Your task to perform on an android device: turn on the 12-hour format for clock Image 0: 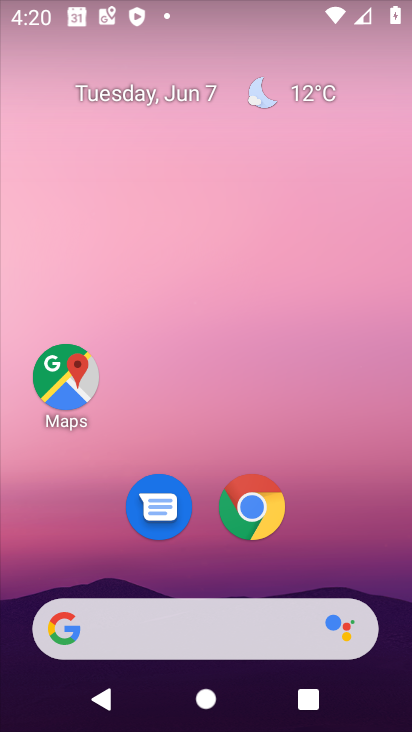
Step 0: drag from (339, 532) to (280, 7)
Your task to perform on an android device: turn on the 12-hour format for clock Image 1: 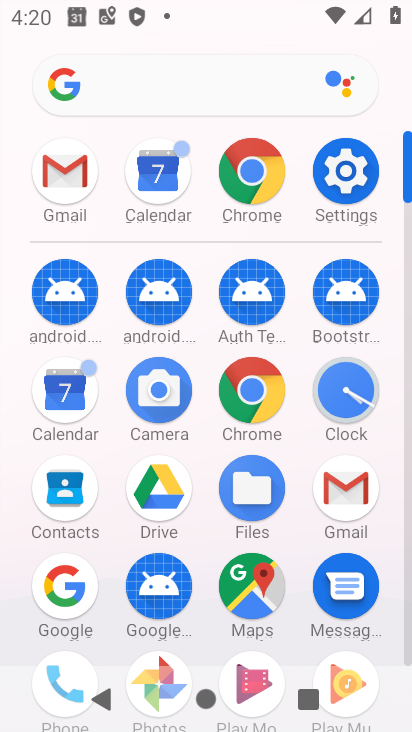
Step 1: drag from (4, 571) to (17, 187)
Your task to perform on an android device: turn on the 12-hour format for clock Image 2: 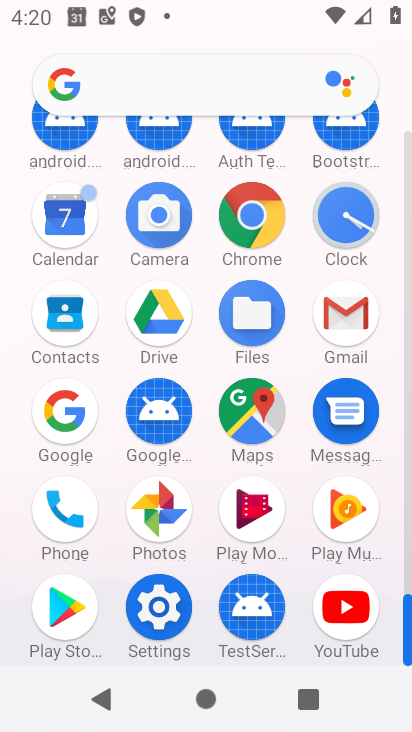
Step 2: click (347, 205)
Your task to perform on an android device: turn on the 12-hour format for clock Image 3: 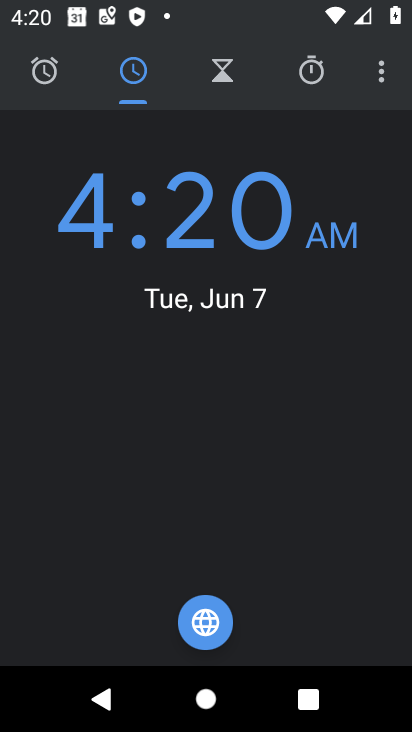
Step 3: drag from (375, 73) to (292, 137)
Your task to perform on an android device: turn on the 12-hour format for clock Image 4: 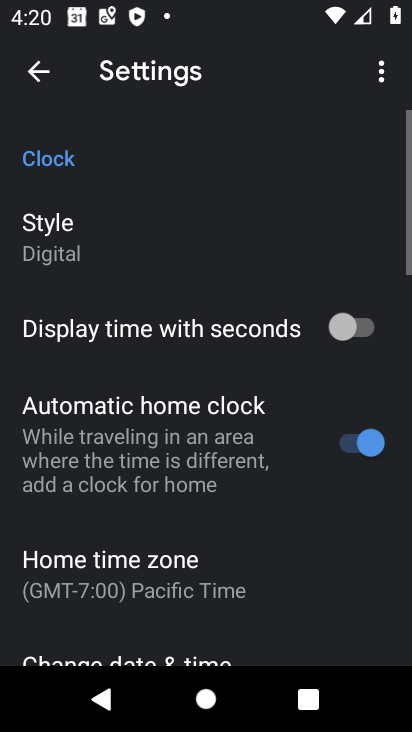
Step 4: drag from (235, 547) to (235, 145)
Your task to perform on an android device: turn on the 12-hour format for clock Image 5: 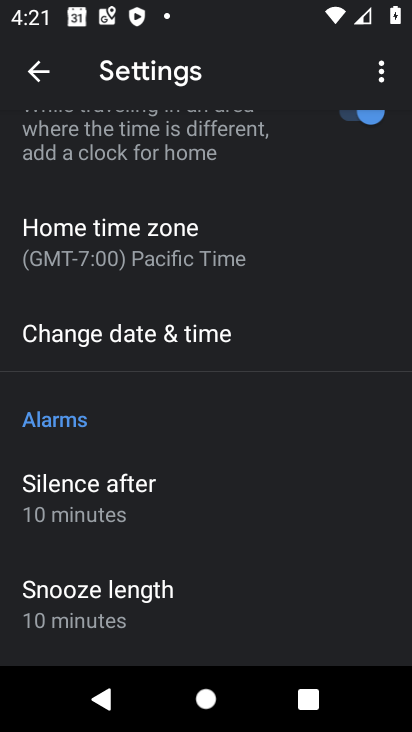
Step 5: drag from (195, 560) to (211, 157)
Your task to perform on an android device: turn on the 12-hour format for clock Image 6: 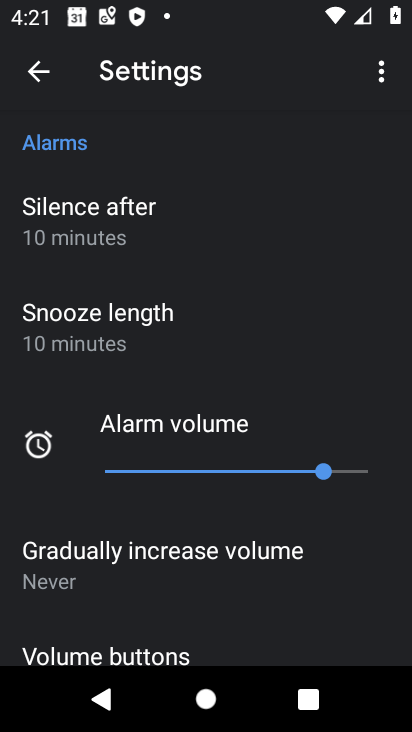
Step 6: drag from (174, 584) to (228, 164)
Your task to perform on an android device: turn on the 12-hour format for clock Image 7: 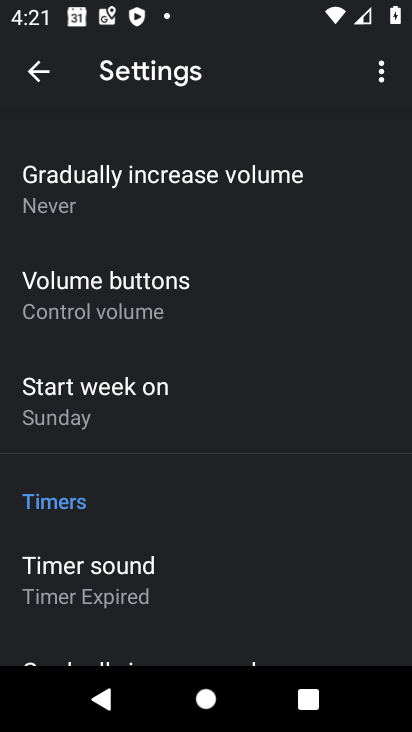
Step 7: drag from (204, 588) to (265, 221)
Your task to perform on an android device: turn on the 12-hour format for clock Image 8: 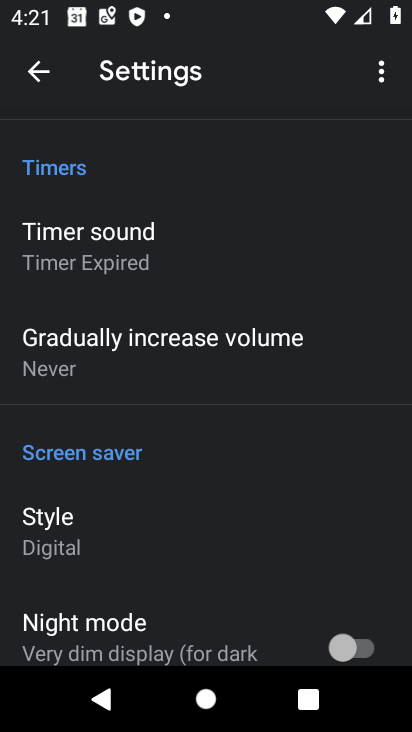
Step 8: drag from (230, 543) to (270, 164)
Your task to perform on an android device: turn on the 12-hour format for clock Image 9: 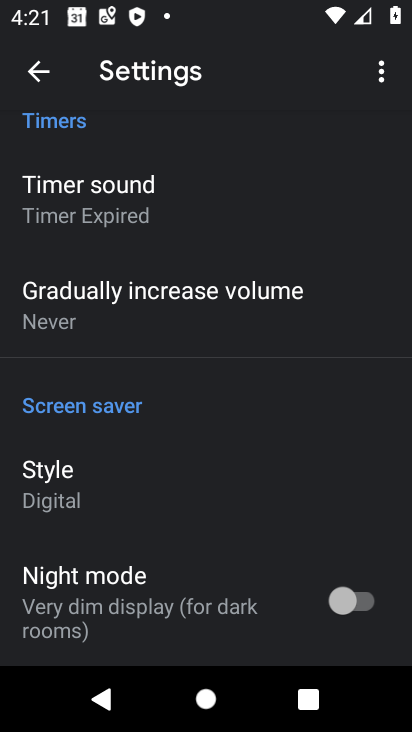
Step 9: drag from (215, 289) to (201, 651)
Your task to perform on an android device: turn on the 12-hour format for clock Image 10: 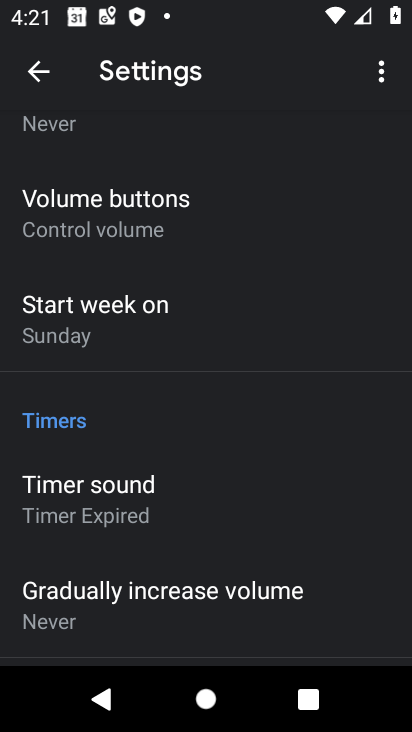
Step 10: drag from (205, 224) to (187, 650)
Your task to perform on an android device: turn on the 12-hour format for clock Image 11: 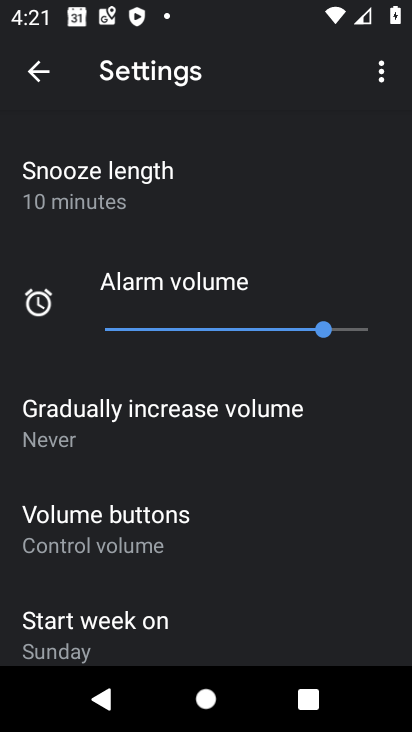
Step 11: drag from (230, 296) to (231, 638)
Your task to perform on an android device: turn on the 12-hour format for clock Image 12: 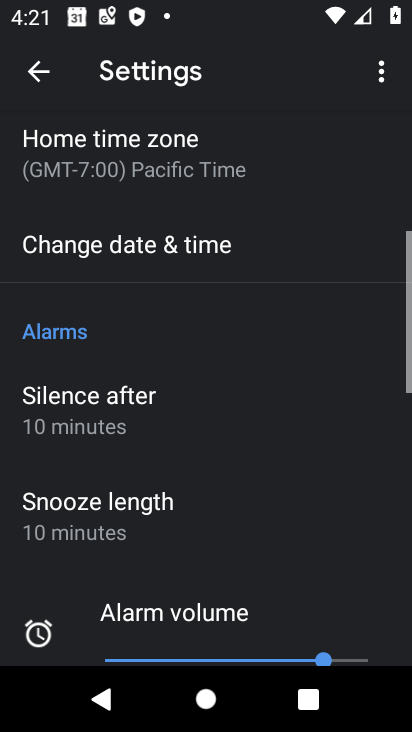
Step 12: click (199, 238)
Your task to perform on an android device: turn on the 12-hour format for clock Image 13: 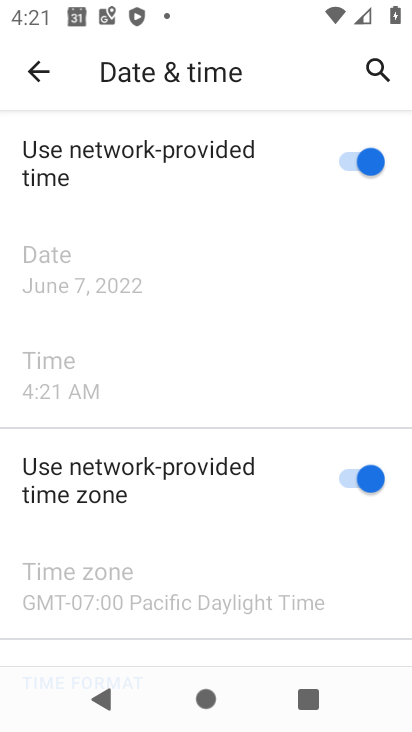
Step 13: task complete